Your task to perform on an android device: open a bookmark in the chrome app Image 0: 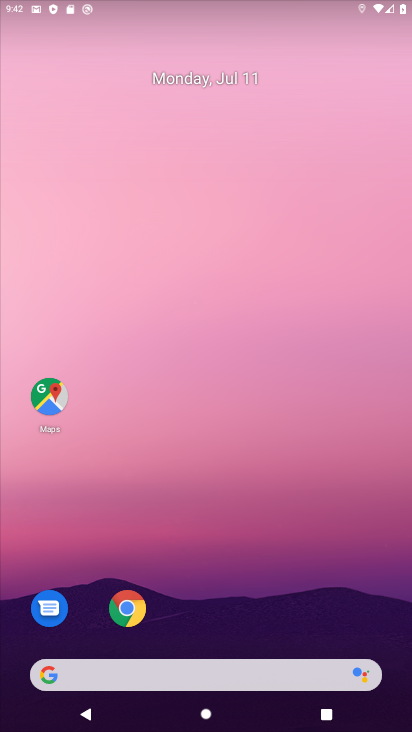
Step 0: drag from (282, 663) to (238, 256)
Your task to perform on an android device: open a bookmark in the chrome app Image 1: 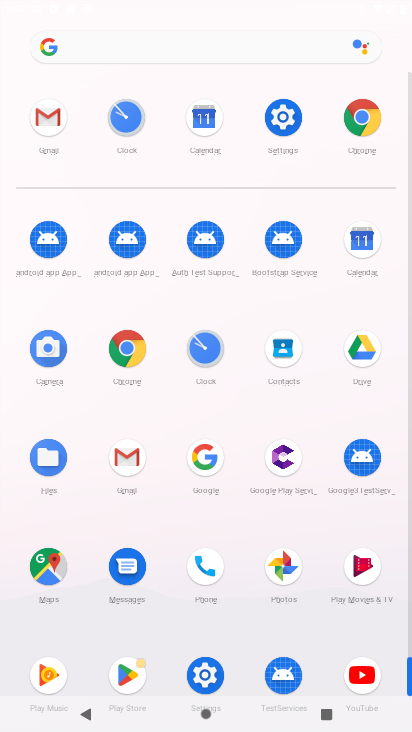
Step 1: click (130, 351)
Your task to perform on an android device: open a bookmark in the chrome app Image 2: 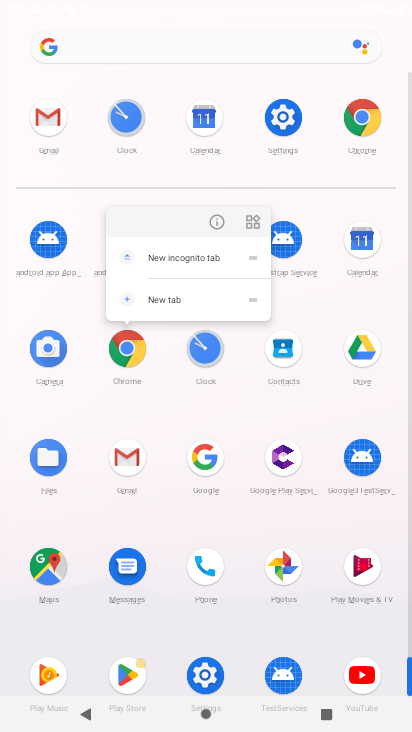
Step 2: click (129, 352)
Your task to perform on an android device: open a bookmark in the chrome app Image 3: 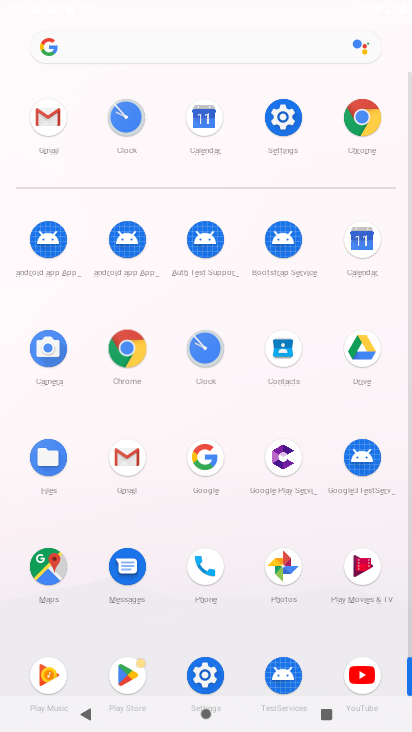
Step 3: click (129, 351)
Your task to perform on an android device: open a bookmark in the chrome app Image 4: 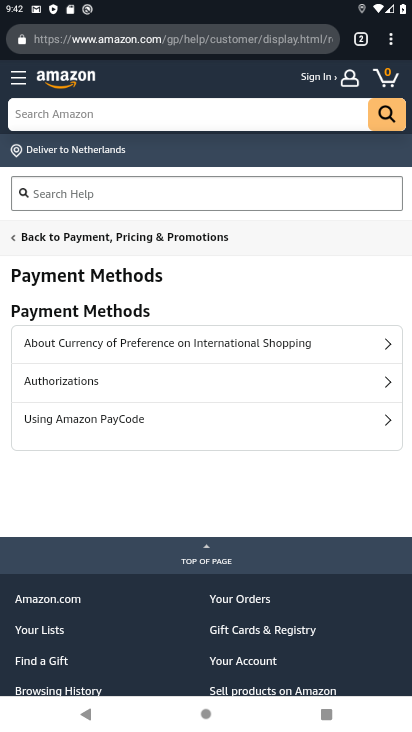
Step 4: drag from (386, 45) to (263, 152)
Your task to perform on an android device: open a bookmark in the chrome app Image 5: 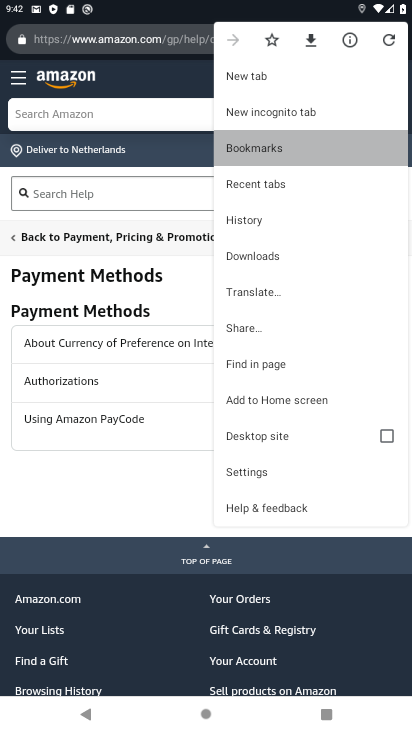
Step 5: click (263, 152)
Your task to perform on an android device: open a bookmark in the chrome app Image 6: 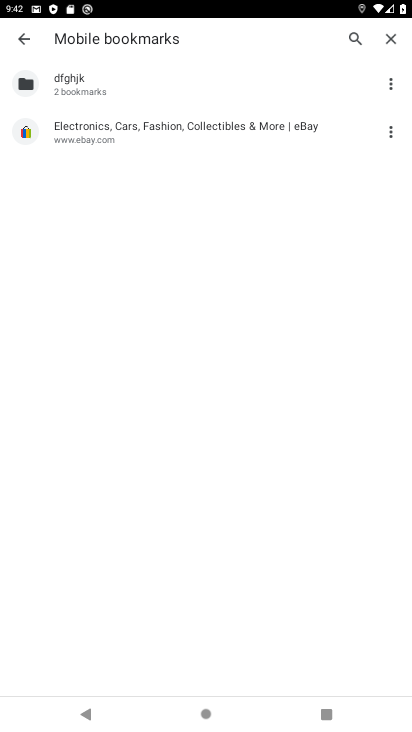
Step 6: task complete